Your task to perform on an android device: Open the calendar and show me this week's events Image 0: 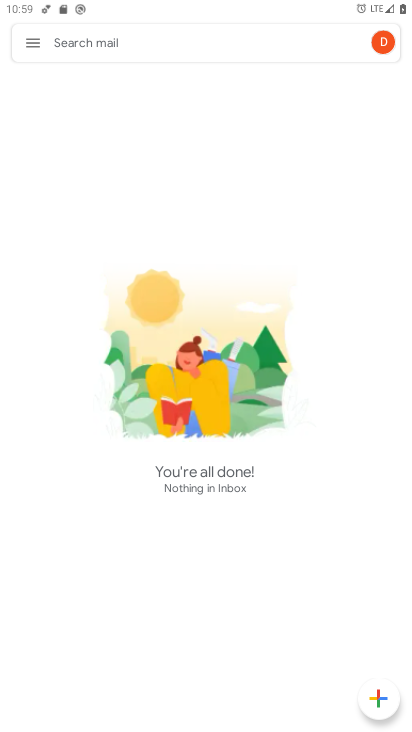
Step 0: press home button
Your task to perform on an android device: Open the calendar and show me this week's events Image 1: 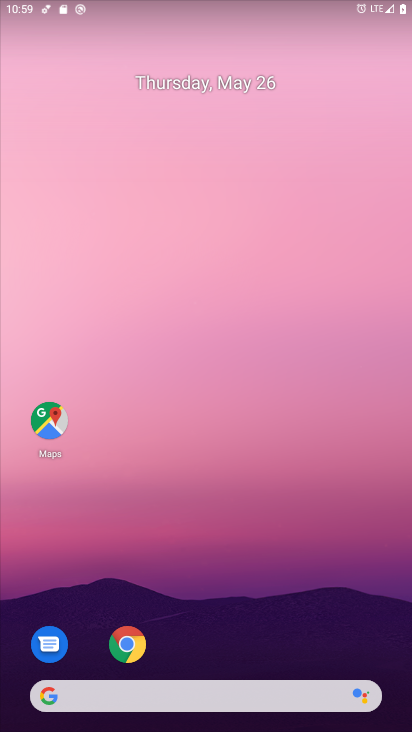
Step 1: drag from (353, 615) to (359, 230)
Your task to perform on an android device: Open the calendar and show me this week's events Image 2: 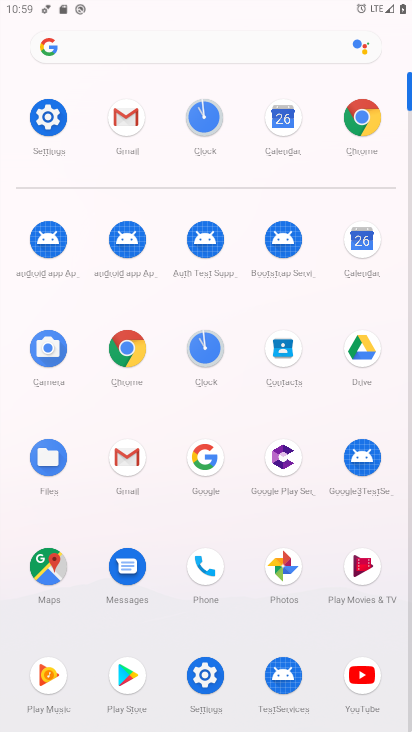
Step 2: click (371, 270)
Your task to perform on an android device: Open the calendar and show me this week's events Image 3: 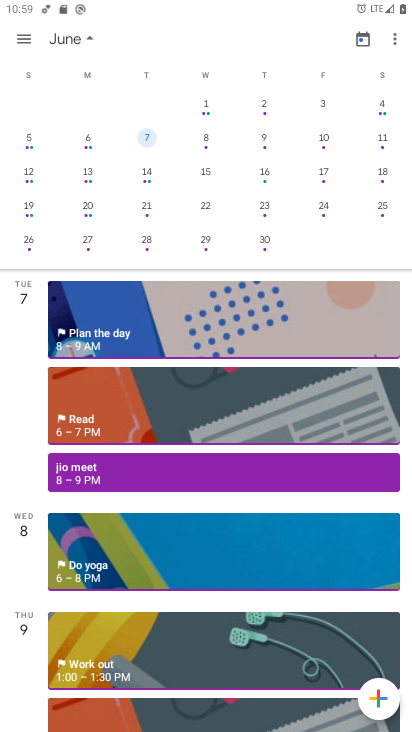
Step 3: drag from (34, 96) to (393, 138)
Your task to perform on an android device: Open the calendar and show me this week's events Image 4: 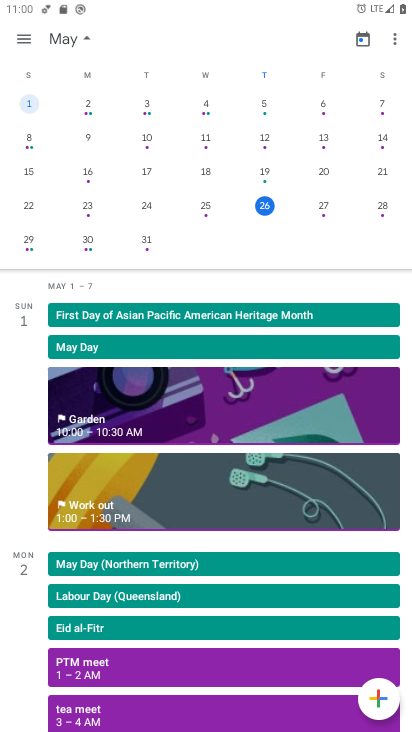
Step 4: click (319, 202)
Your task to perform on an android device: Open the calendar and show me this week's events Image 5: 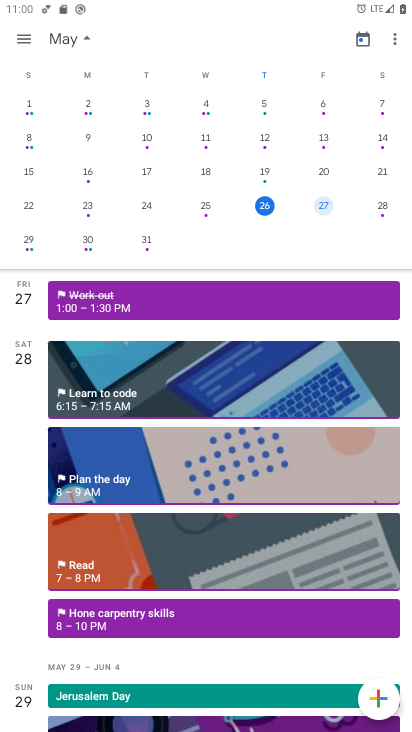
Step 5: task complete